Your task to perform on an android device: Go to ESPN.com Image 0: 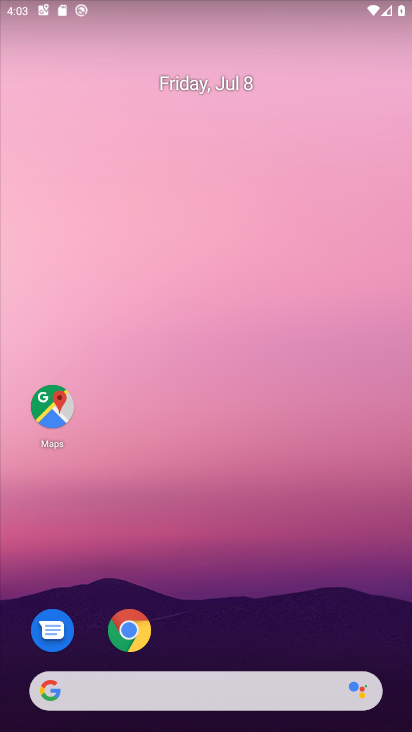
Step 0: drag from (273, 578) to (267, 119)
Your task to perform on an android device: Go to ESPN.com Image 1: 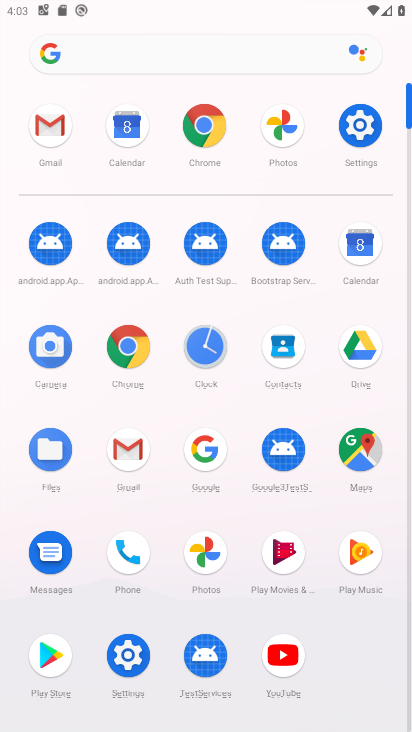
Step 1: click (202, 124)
Your task to perform on an android device: Go to ESPN.com Image 2: 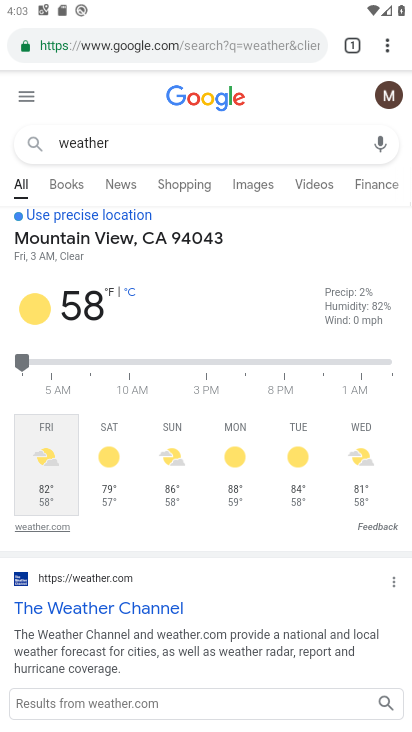
Step 2: click (239, 40)
Your task to perform on an android device: Go to ESPN.com Image 3: 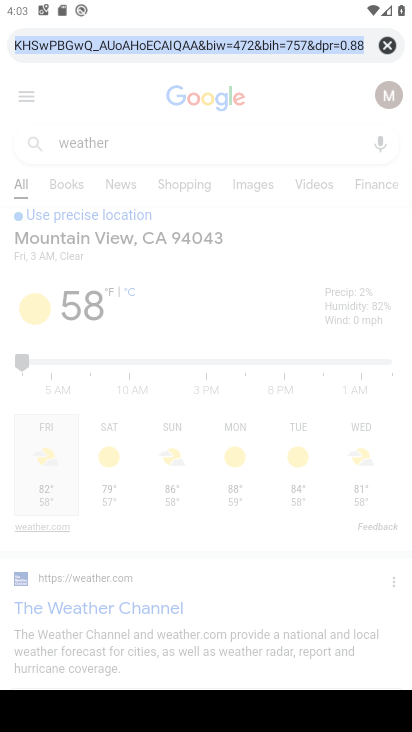
Step 3: click (389, 38)
Your task to perform on an android device: Go to ESPN.com Image 4: 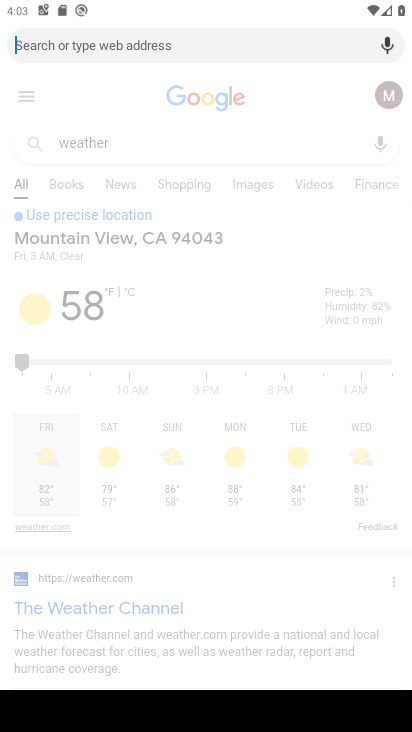
Step 4: type "espn.com"
Your task to perform on an android device: Go to ESPN.com Image 5: 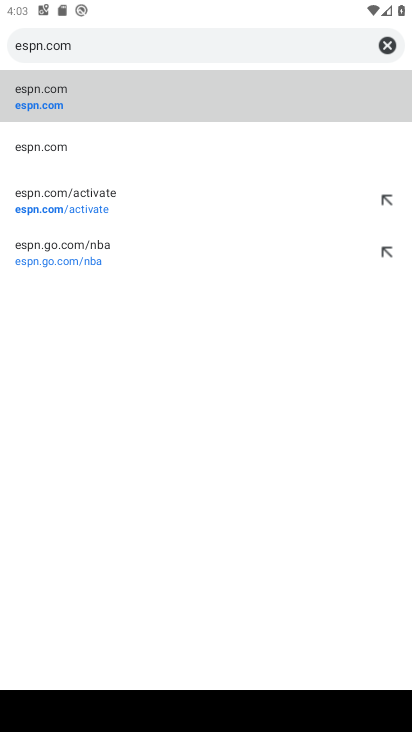
Step 5: click (36, 100)
Your task to perform on an android device: Go to ESPN.com Image 6: 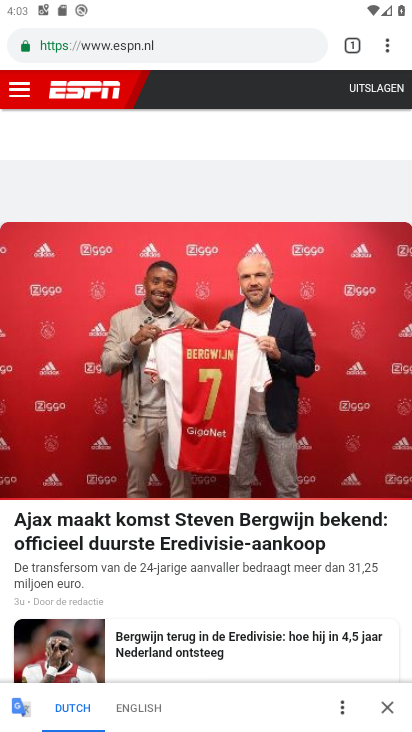
Step 6: task complete